Your task to perform on an android device: Go to settings Image 0: 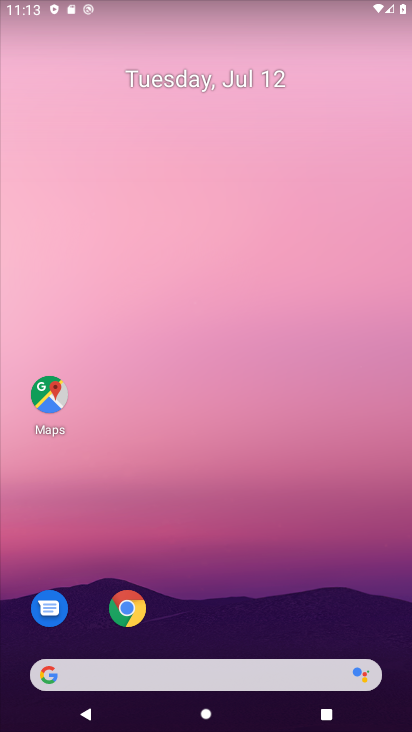
Step 0: drag from (239, 667) to (242, 228)
Your task to perform on an android device: Go to settings Image 1: 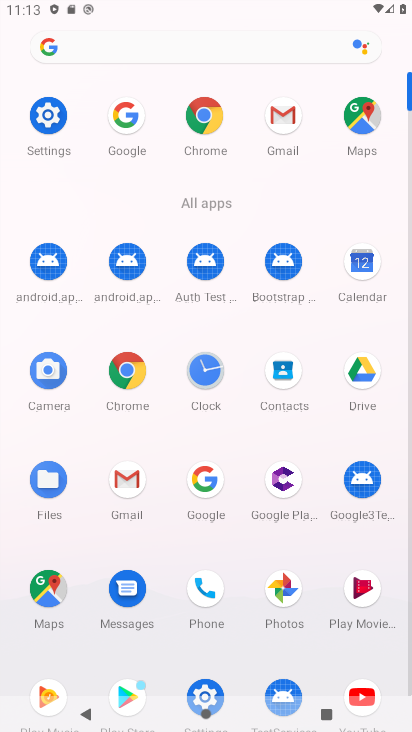
Step 1: click (52, 123)
Your task to perform on an android device: Go to settings Image 2: 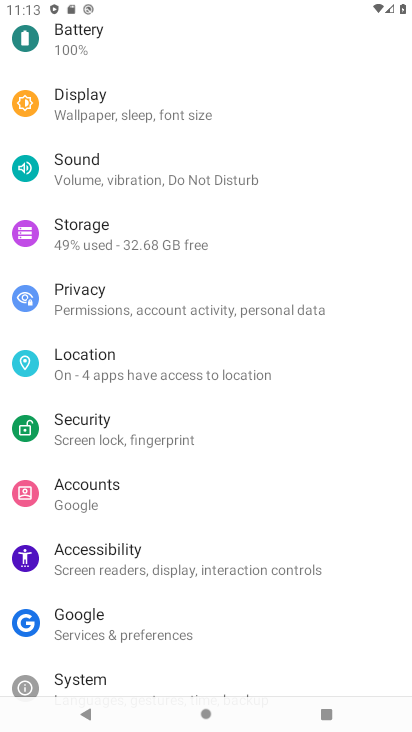
Step 2: task complete